Your task to perform on an android device: add a contact in the contacts app Image 0: 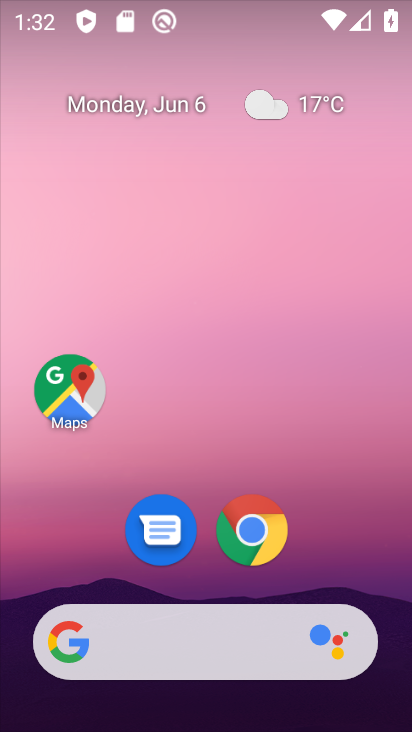
Step 0: drag from (296, 564) to (279, 179)
Your task to perform on an android device: add a contact in the contacts app Image 1: 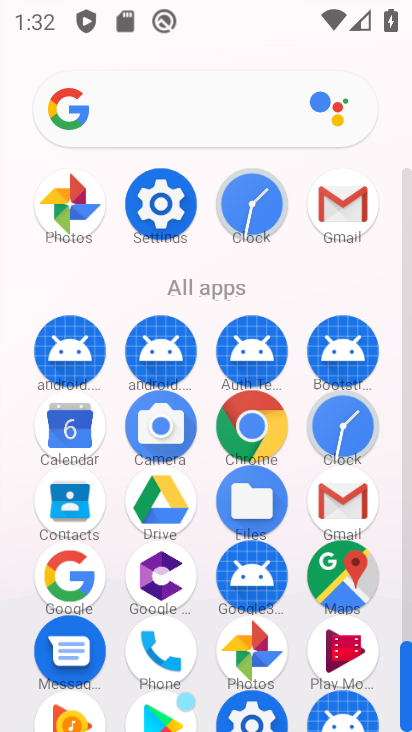
Step 1: click (153, 648)
Your task to perform on an android device: add a contact in the contacts app Image 2: 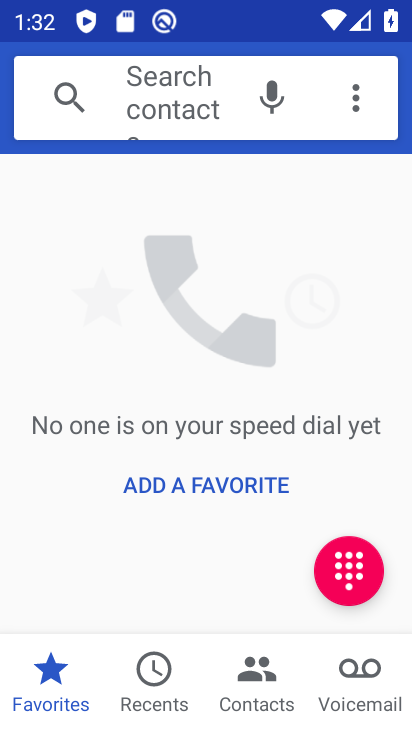
Step 2: click (205, 488)
Your task to perform on an android device: add a contact in the contacts app Image 3: 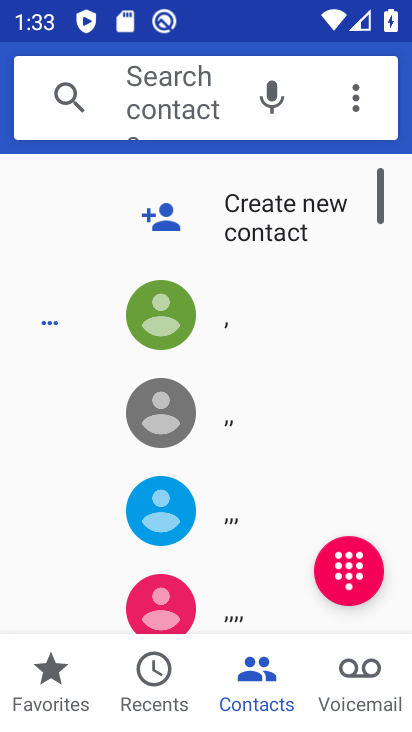
Step 3: click (174, 216)
Your task to perform on an android device: add a contact in the contacts app Image 4: 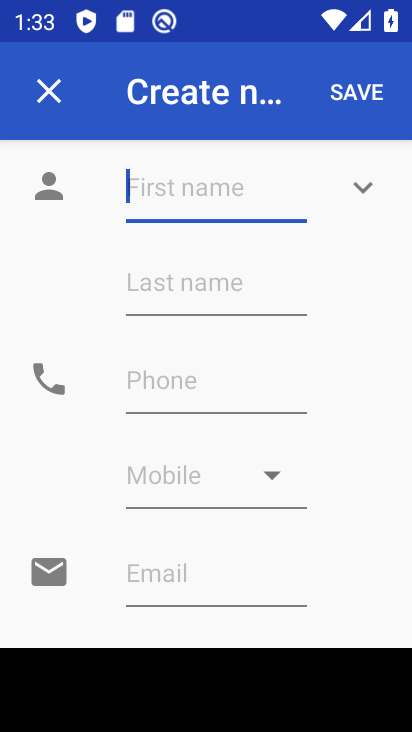
Step 4: click (224, 178)
Your task to perform on an android device: add a contact in the contacts app Image 5: 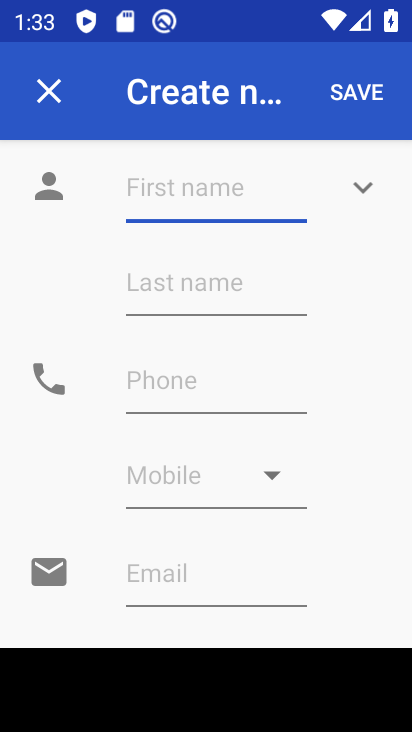
Step 5: type "asdfghjkl"
Your task to perform on an android device: add a contact in the contacts app Image 6: 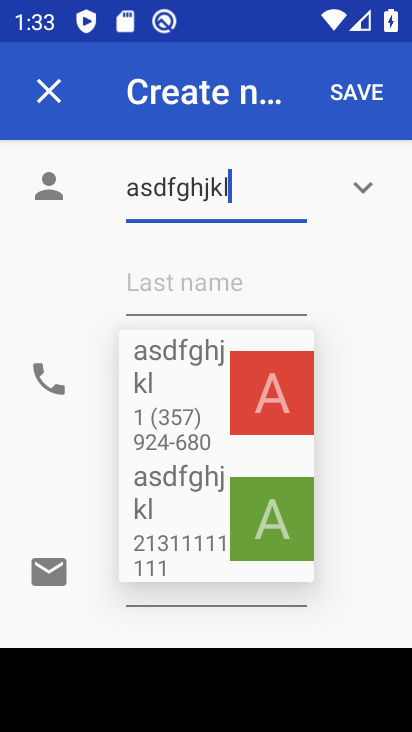
Step 6: click (150, 374)
Your task to perform on an android device: add a contact in the contacts app Image 7: 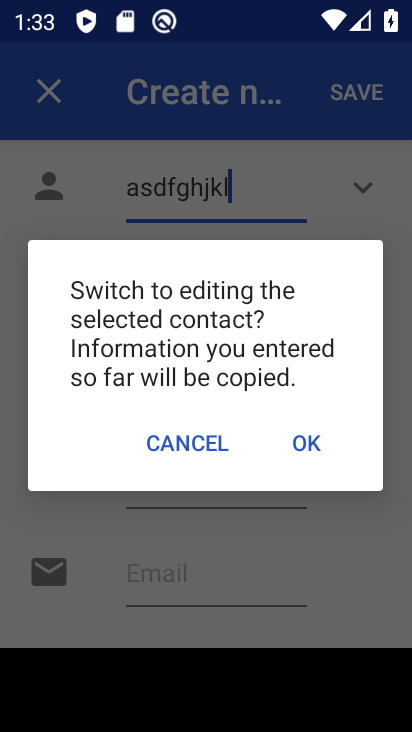
Step 7: click (293, 443)
Your task to perform on an android device: add a contact in the contacts app Image 8: 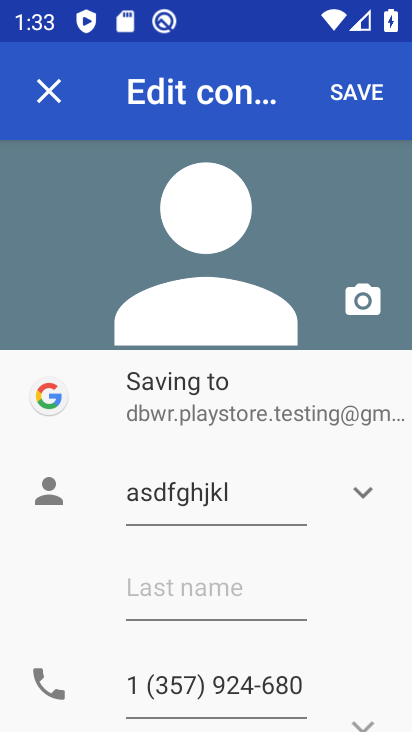
Step 8: click (353, 85)
Your task to perform on an android device: add a contact in the contacts app Image 9: 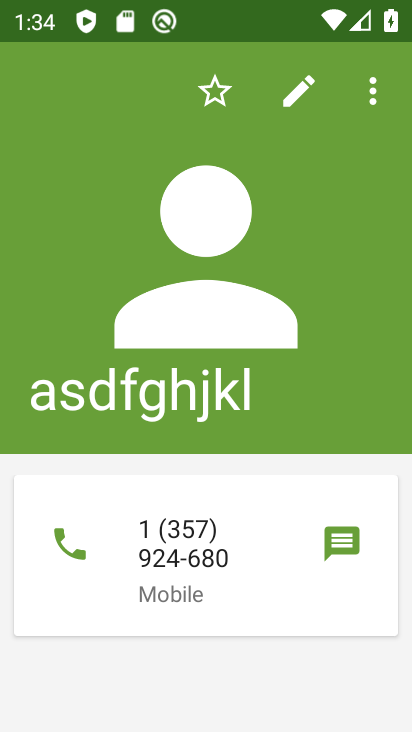
Step 9: task complete